Your task to perform on an android device: check data usage Image 0: 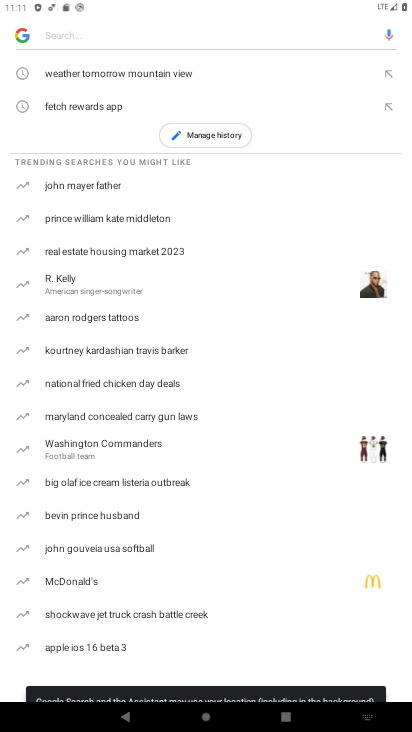
Step 0: press home button
Your task to perform on an android device: check data usage Image 1: 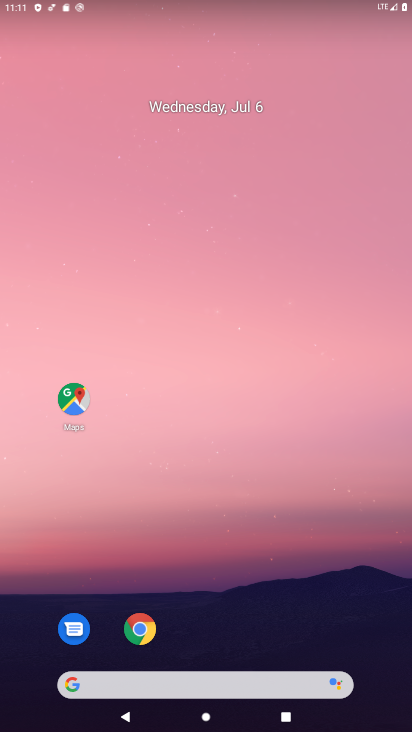
Step 1: click (208, 234)
Your task to perform on an android device: check data usage Image 2: 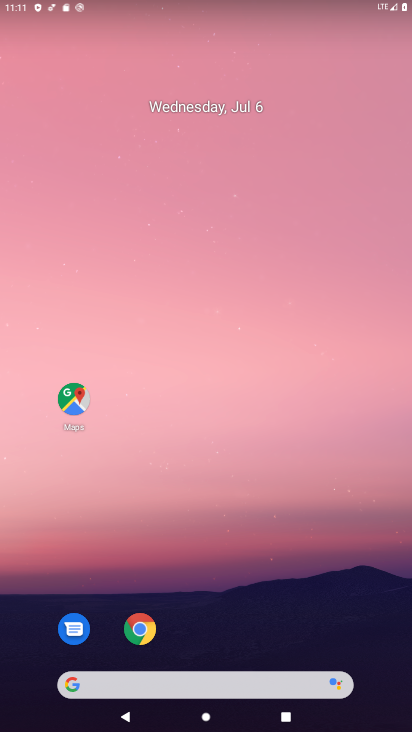
Step 2: drag from (209, 628) to (209, 247)
Your task to perform on an android device: check data usage Image 3: 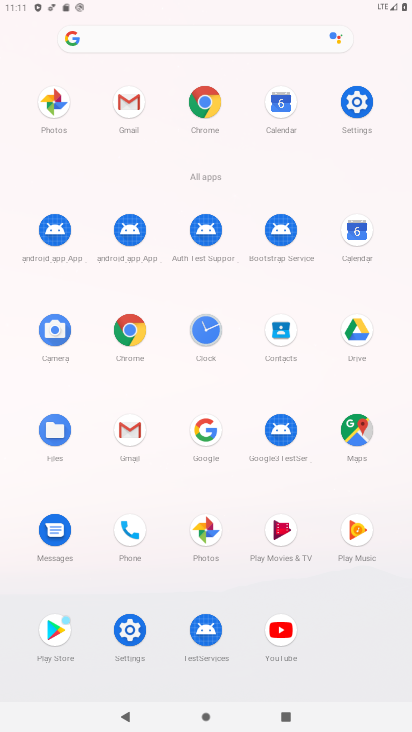
Step 3: click (342, 103)
Your task to perform on an android device: check data usage Image 4: 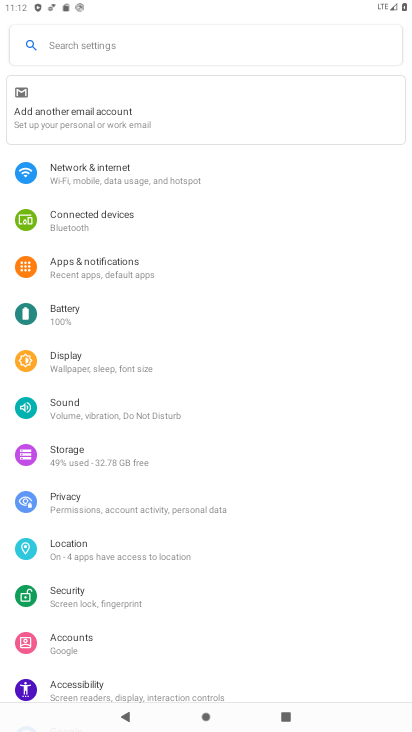
Step 4: click (147, 194)
Your task to perform on an android device: check data usage Image 5: 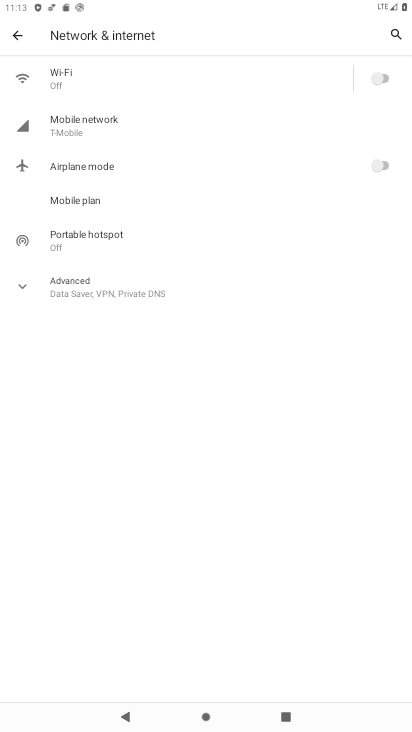
Step 5: click (73, 289)
Your task to perform on an android device: check data usage Image 6: 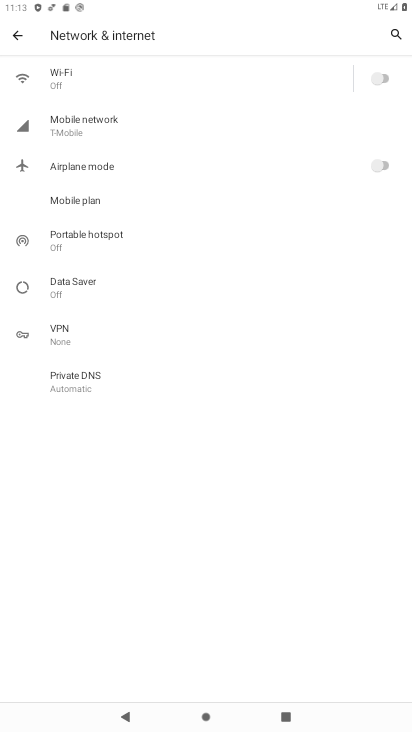
Step 6: click (106, 135)
Your task to perform on an android device: check data usage Image 7: 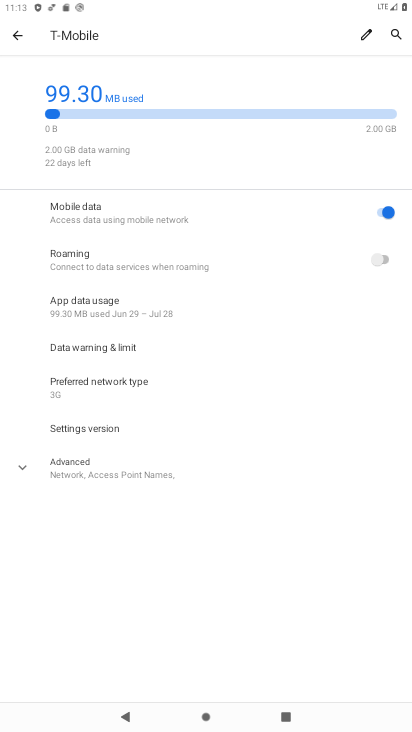
Step 7: click (141, 125)
Your task to perform on an android device: check data usage Image 8: 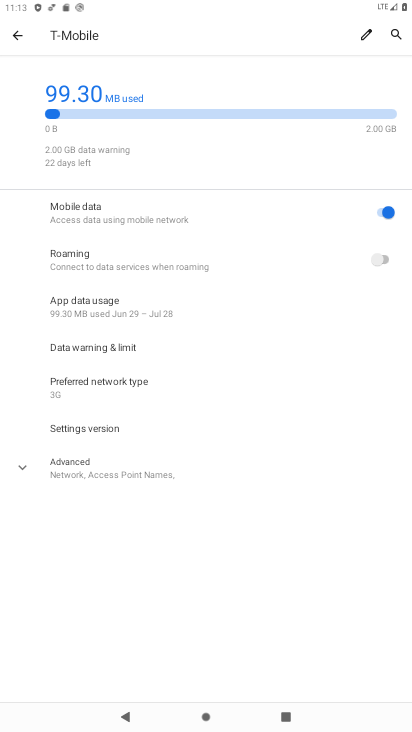
Step 8: click (103, 310)
Your task to perform on an android device: check data usage Image 9: 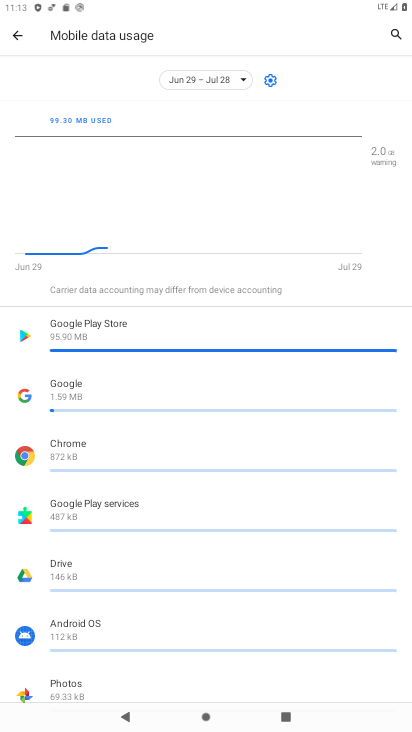
Step 9: task complete